Your task to perform on an android device: turn off translation in the chrome app Image 0: 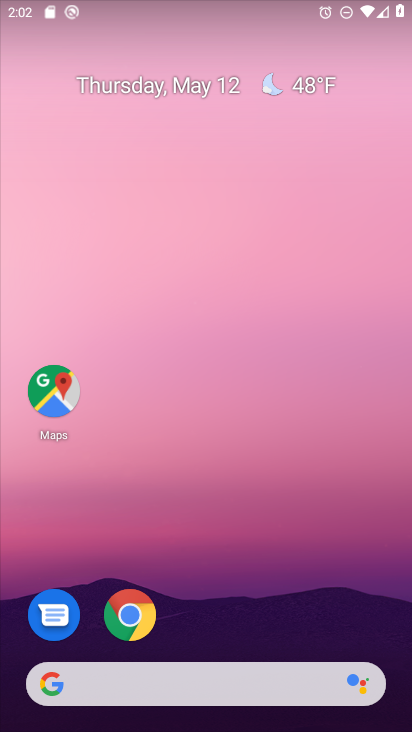
Step 0: drag from (335, 611) to (306, 6)
Your task to perform on an android device: turn off translation in the chrome app Image 1: 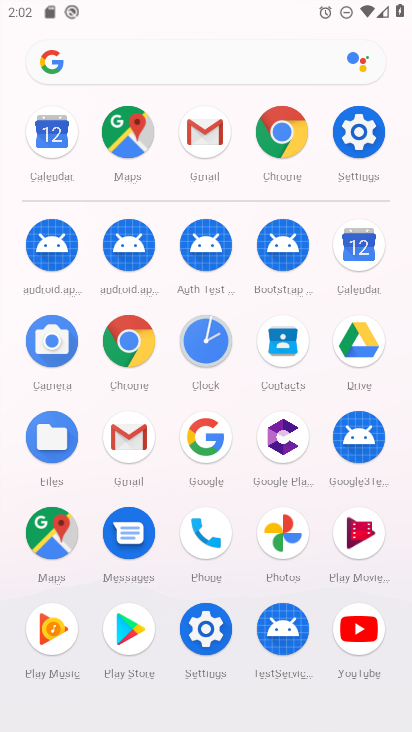
Step 1: click (138, 343)
Your task to perform on an android device: turn off translation in the chrome app Image 2: 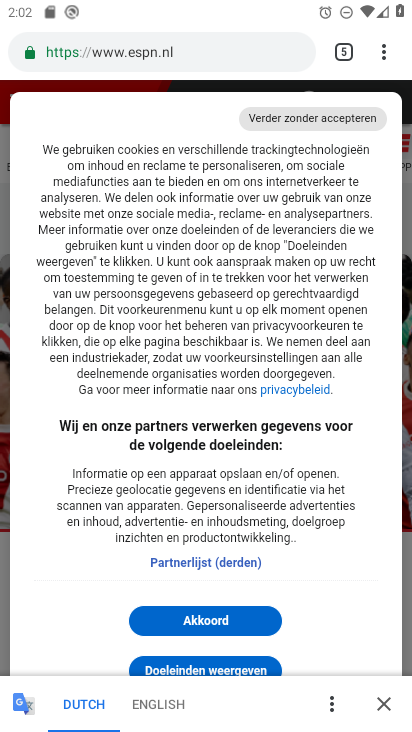
Step 2: drag from (388, 46) to (219, 642)
Your task to perform on an android device: turn off translation in the chrome app Image 3: 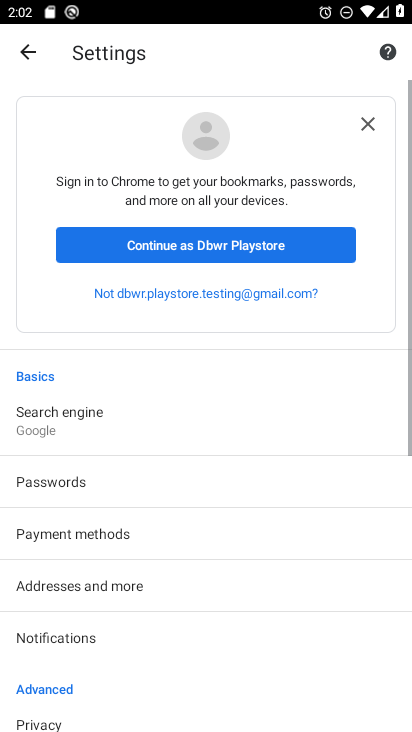
Step 3: drag from (198, 641) to (296, 45)
Your task to perform on an android device: turn off translation in the chrome app Image 4: 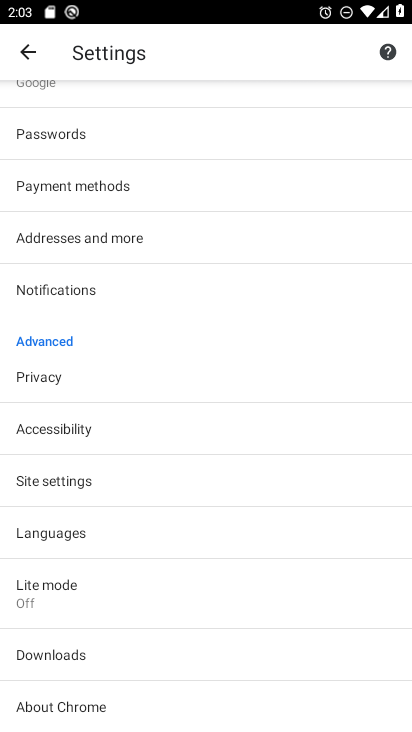
Step 4: click (84, 523)
Your task to perform on an android device: turn off translation in the chrome app Image 5: 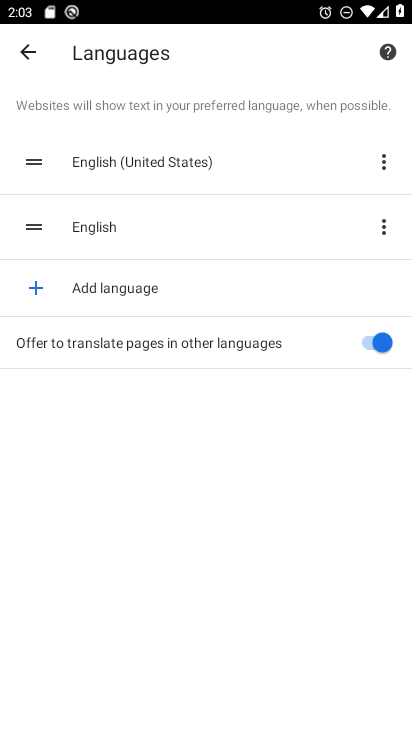
Step 5: click (363, 344)
Your task to perform on an android device: turn off translation in the chrome app Image 6: 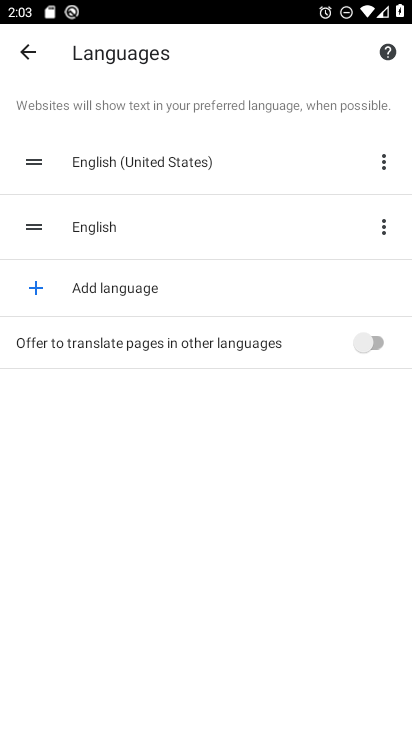
Step 6: task complete